Your task to perform on an android device: Go to location settings Image 0: 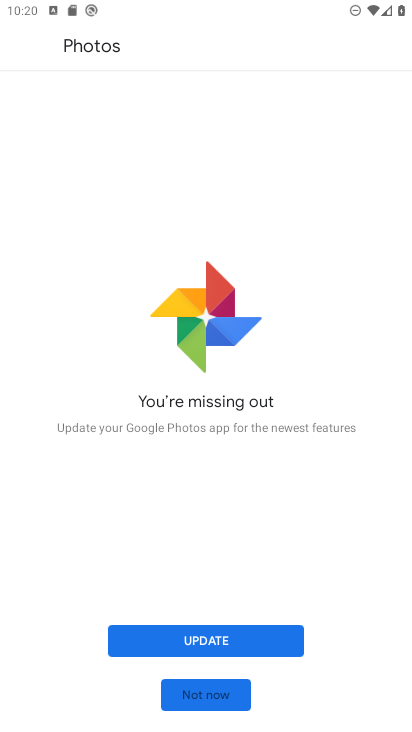
Step 0: press home button
Your task to perform on an android device: Go to location settings Image 1: 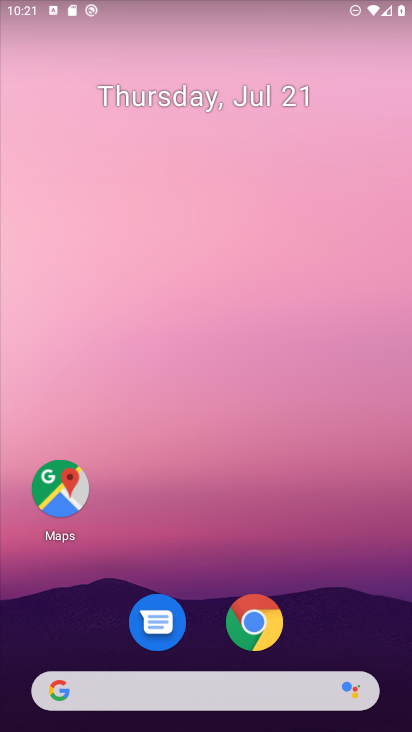
Step 1: drag from (138, 723) to (173, 7)
Your task to perform on an android device: Go to location settings Image 2: 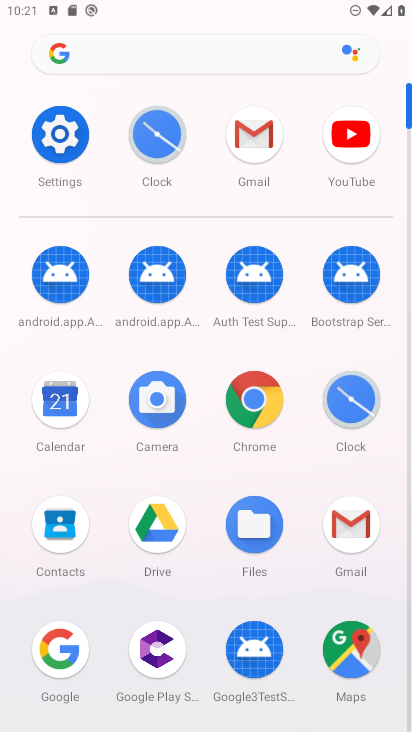
Step 2: click (62, 139)
Your task to perform on an android device: Go to location settings Image 3: 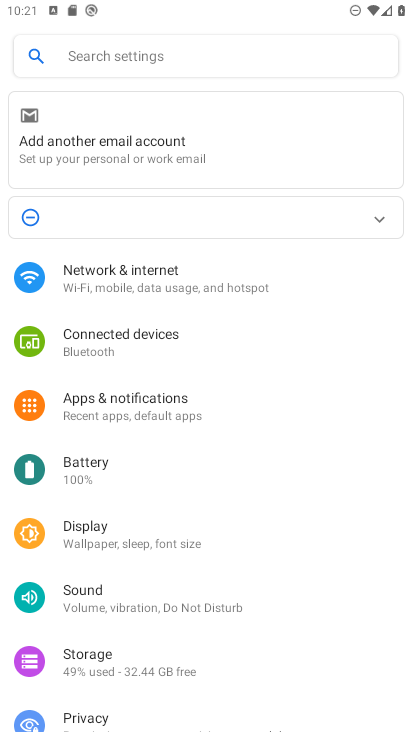
Step 3: drag from (168, 679) to (153, 8)
Your task to perform on an android device: Go to location settings Image 4: 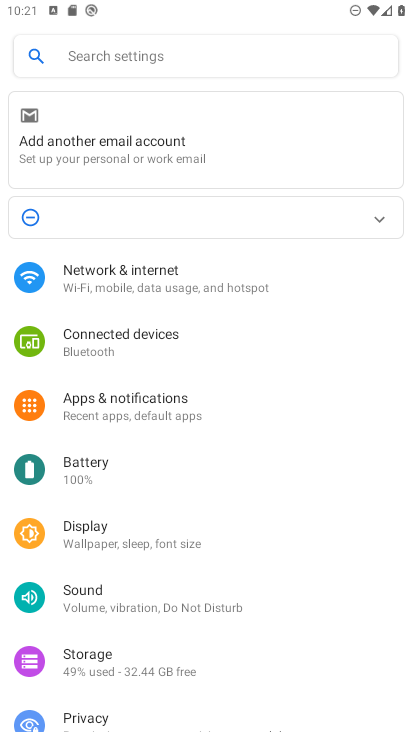
Step 4: drag from (319, 604) to (409, 62)
Your task to perform on an android device: Go to location settings Image 5: 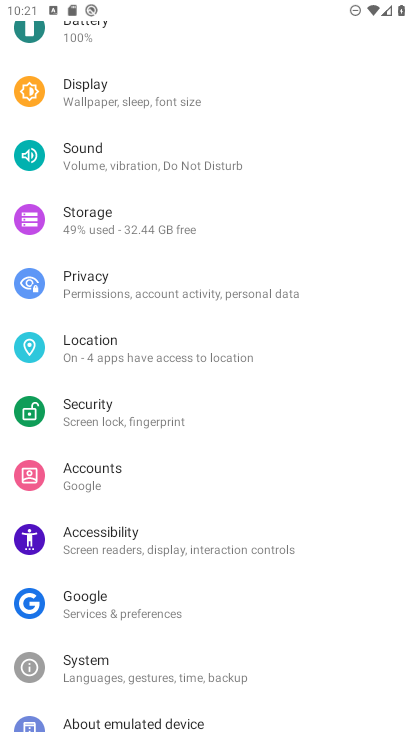
Step 5: click (154, 346)
Your task to perform on an android device: Go to location settings Image 6: 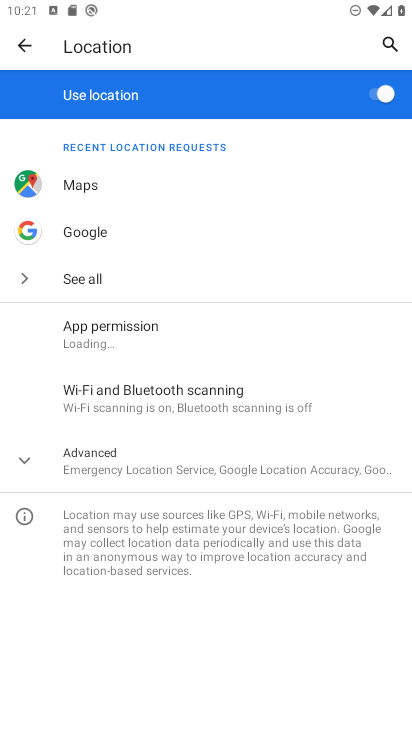
Step 6: task complete